Your task to perform on an android device: Open settings Image 0: 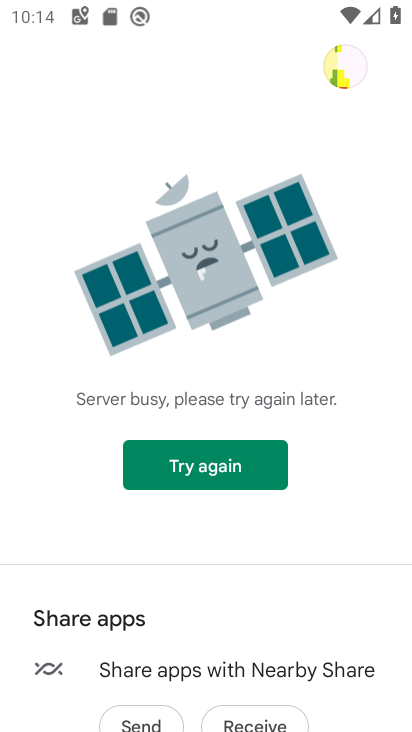
Step 0: press home button
Your task to perform on an android device: Open settings Image 1: 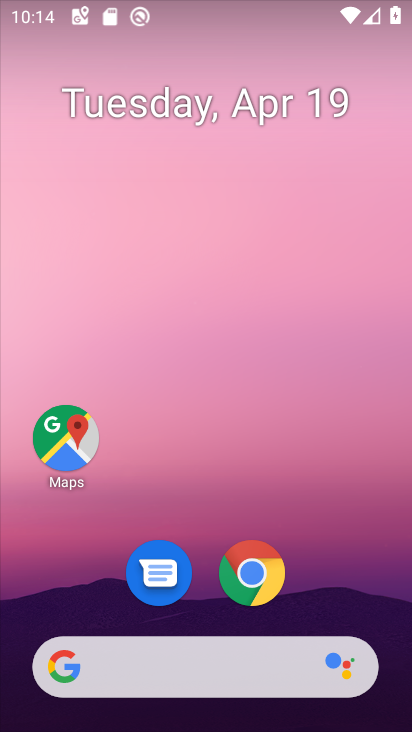
Step 1: drag from (319, 570) to (259, 59)
Your task to perform on an android device: Open settings Image 2: 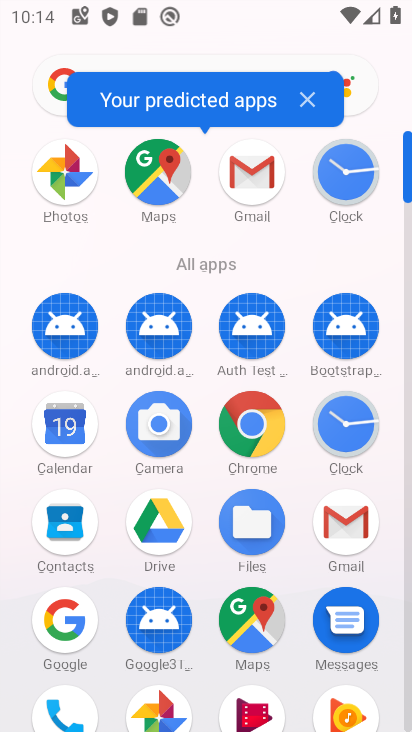
Step 2: drag from (209, 565) to (204, 342)
Your task to perform on an android device: Open settings Image 3: 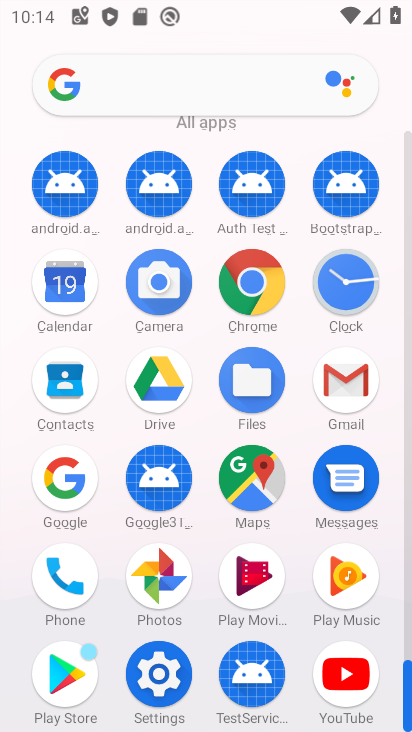
Step 3: click (162, 668)
Your task to perform on an android device: Open settings Image 4: 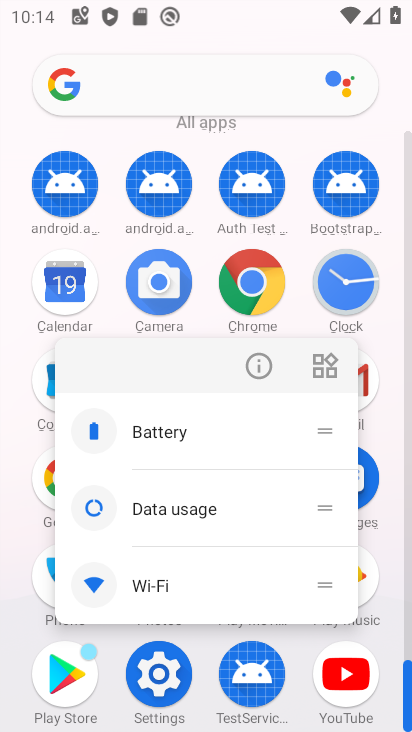
Step 4: click (163, 665)
Your task to perform on an android device: Open settings Image 5: 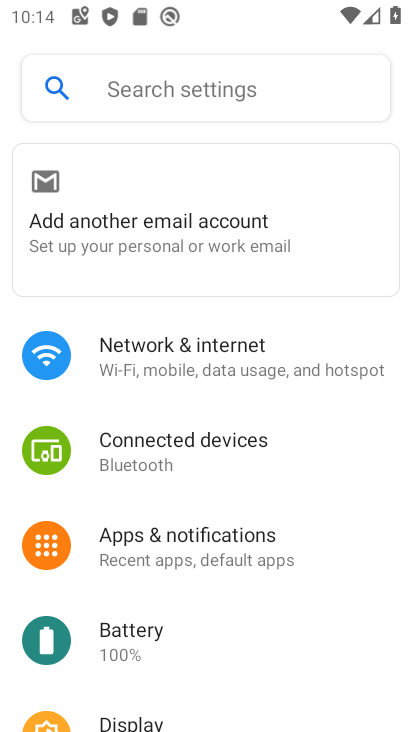
Step 5: task complete